Your task to perform on an android device: toggle pop-ups in chrome Image 0: 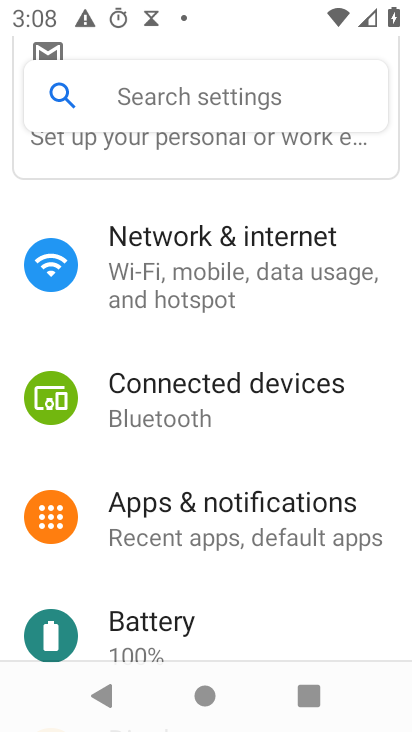
Step 0: press home button
Your task to perform on an android device: toggle pop-ups in chrome Image 1: 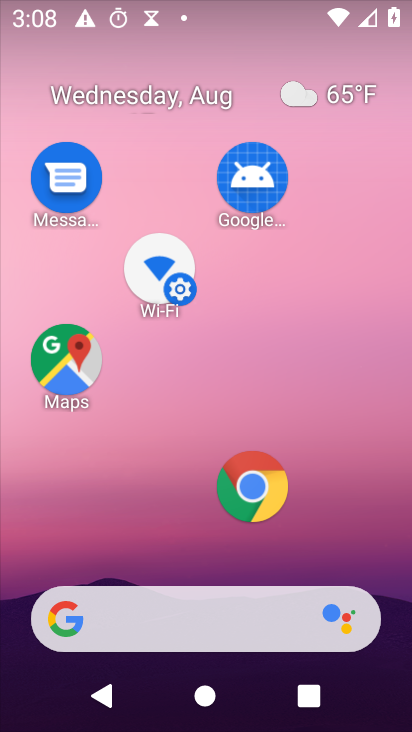
Step 1: click (247, 477)
Your task to perform on an android device: toggle pop-ups in chrome Image 2: 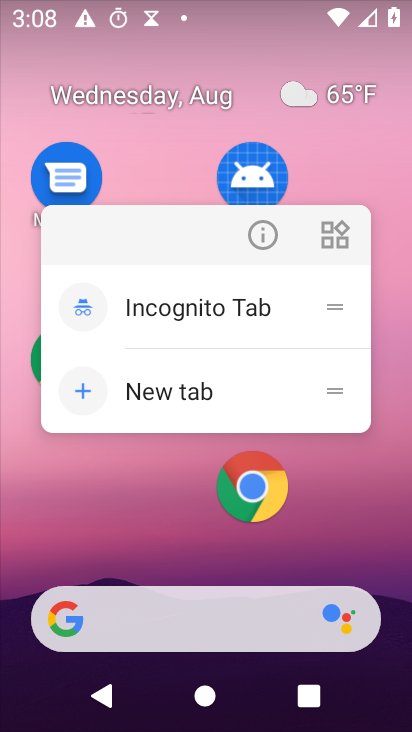
Step 2: click (247, 477)
Your task to perform on an android device: toggle pop-ups in chrome Image 3: 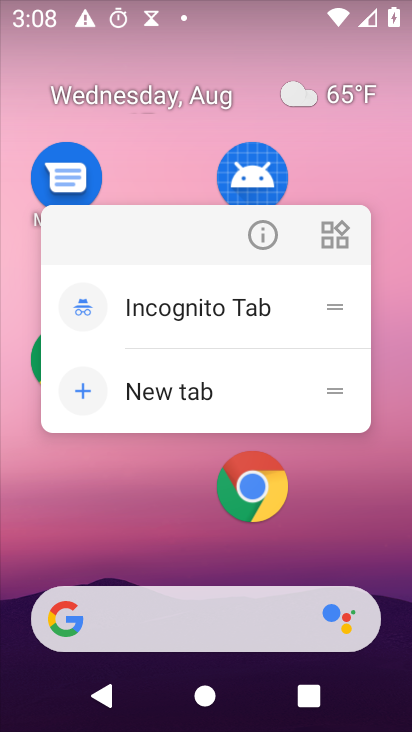
Step 3: click (247, 477)
Your task to perform on an android device: toggle pop-ups in chrome Image 4: 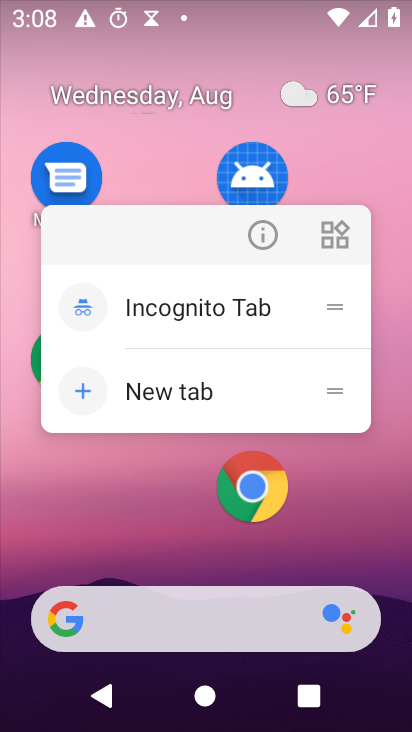
Step 4: click (247, 477)
Your task to perform on an android device: toggle pop-ups in chrome Image 5: 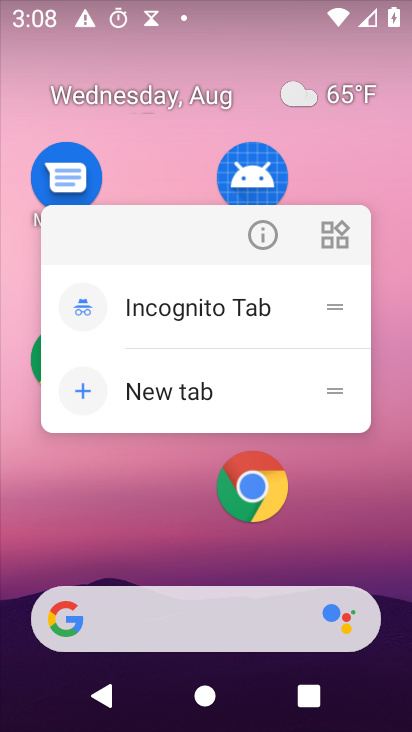
Step 5: click (236, 469)
Your task to perform on an android device: toggle pop-ups in chrome Image 6: 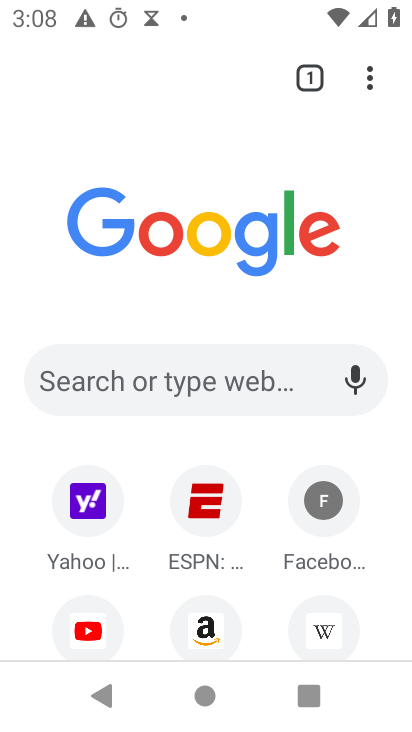
Step 6: drag from (368, 80) to (117, 554)
Your task to perform on an android device: toggle pop-ups in chrome Image 7: 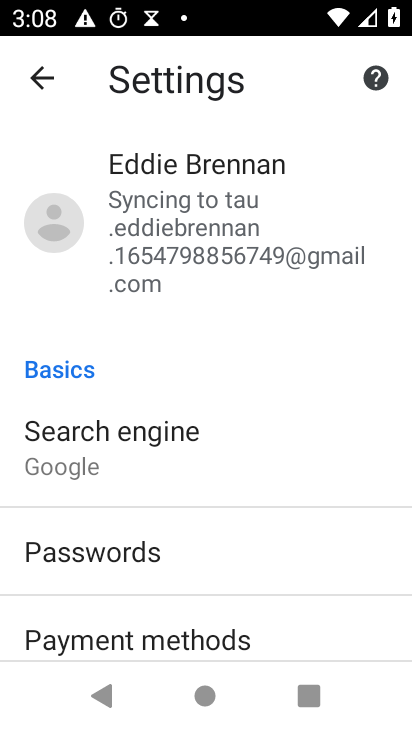
Step 7: drag from (302, 630) to (297, 125)
Your task to perform on an android device: toggle pop-ups in chrome Image 8: 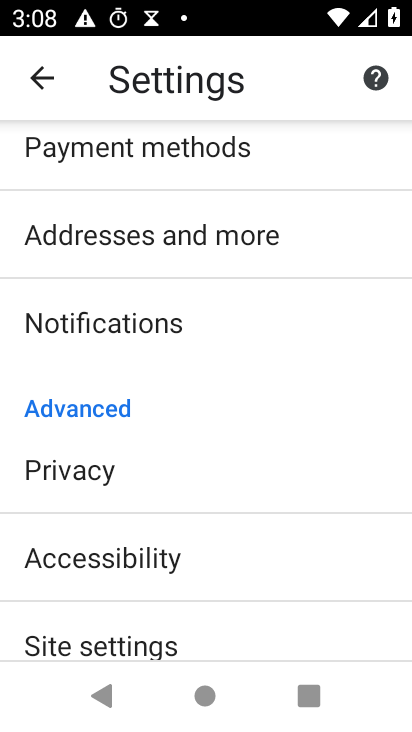
Step 8: click (89, 645)
Your task to perform on an android device: toggle pop-ups in chrome Image 9: 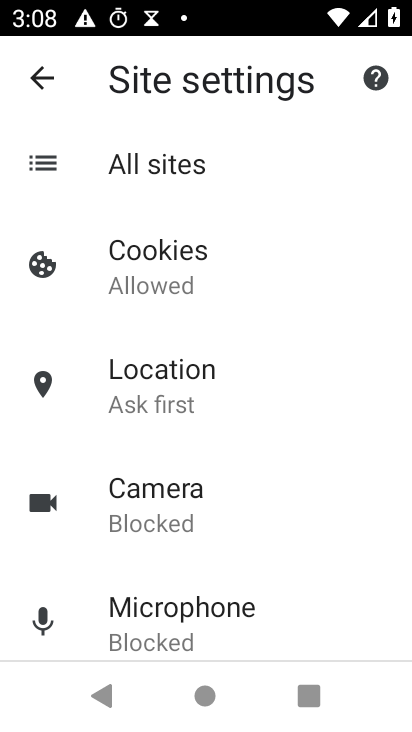
Step 9: drag from (363, 566) to (356, 124)
Your task to perform on an android device: toggle pop-ups in chrome Image 10: 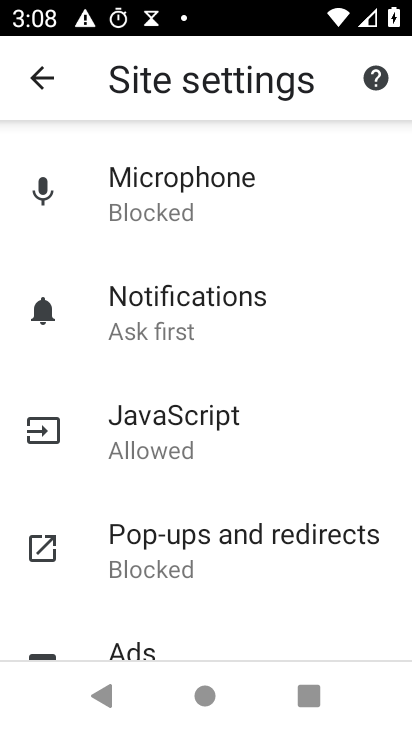
Step 10: click (148, 545)
Your task to perform on an android device: toggle pop-ups in chrome Image 11: 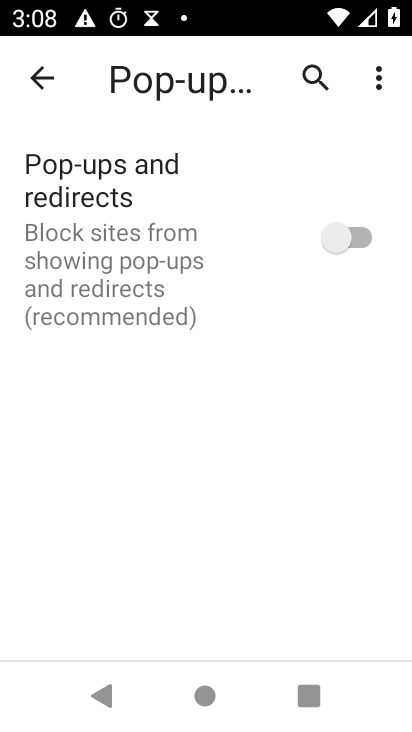
Step 11: click (327, 234)
Your task to perform on an android device: toggle pop-ups in chrome Image 12: 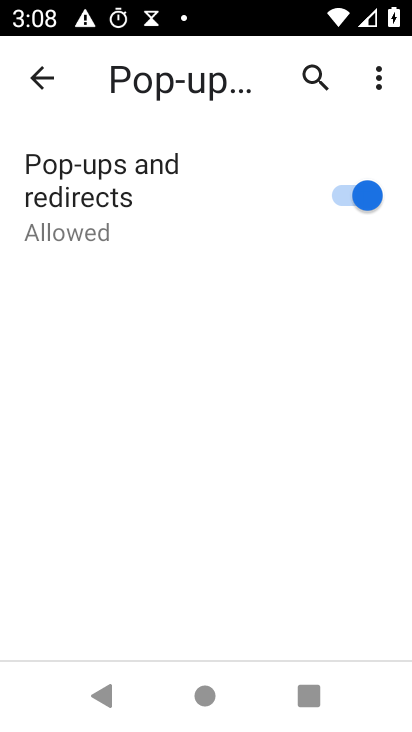
Step 12: task complete